Your task to perform on an android device: add a contact in the contacts app Image 0: 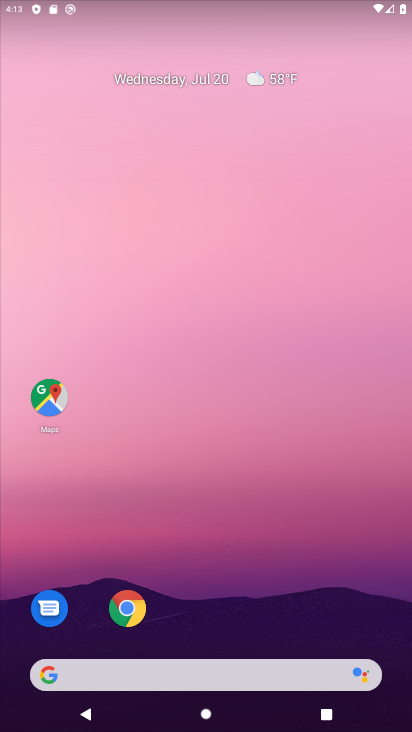
Step 0: drag from (200, 630) to (169, 123)
Your task to perform on an android device: add a contact in the contacts app Image 1: 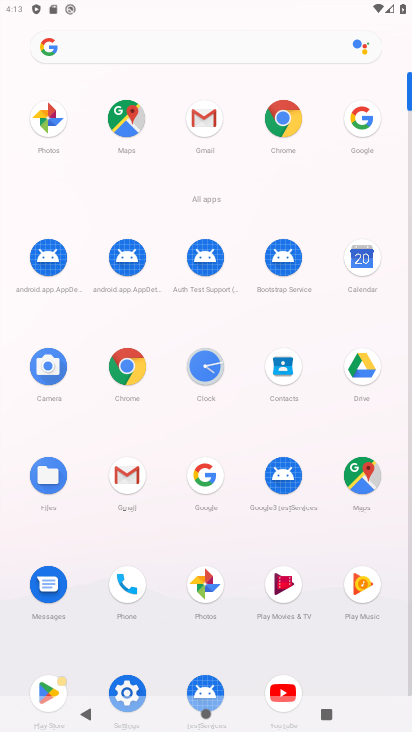
Step 1: click (124, 583)
Your task to perform on an android device: add a contact in the contacts app Image 2: 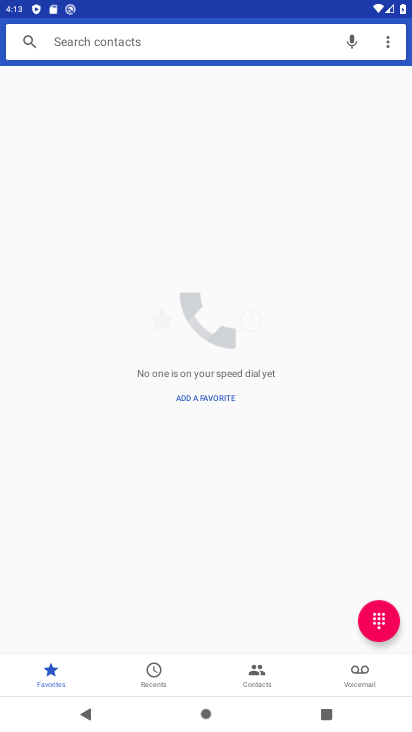
Step 2: click (249, 665)
Your task to perform on an android device: add a contact in the contacts app Image 3: 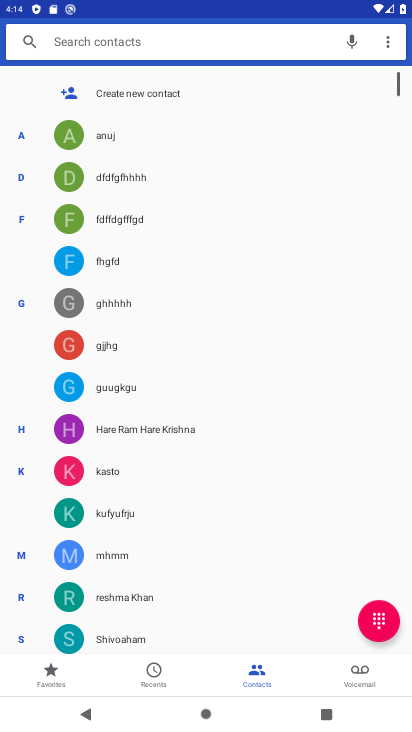
Step 3: click (164, 93)
Your task to perform on an android device: add a contact in the contacts app Image 4: 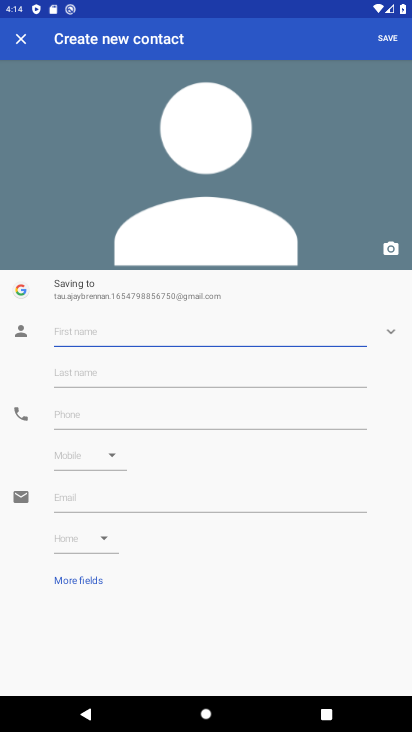
Step 4: type "mnm"
Your task to perform on an android device: add a contact in the contacts app Image 5: 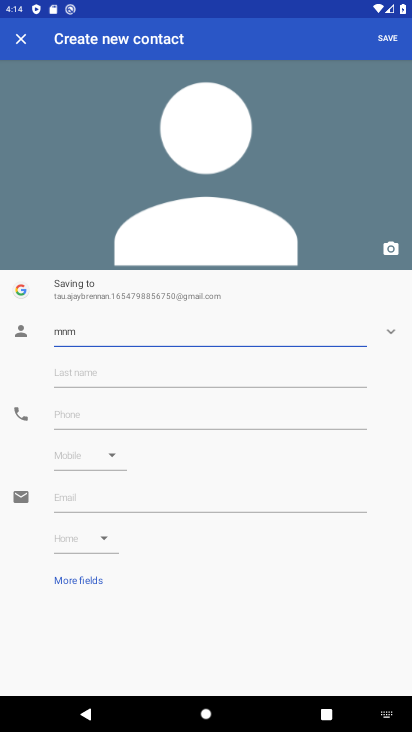
Step 5: click (384, 35)
Your task to perform on an android device: add a contact in the contacts app Image 6: 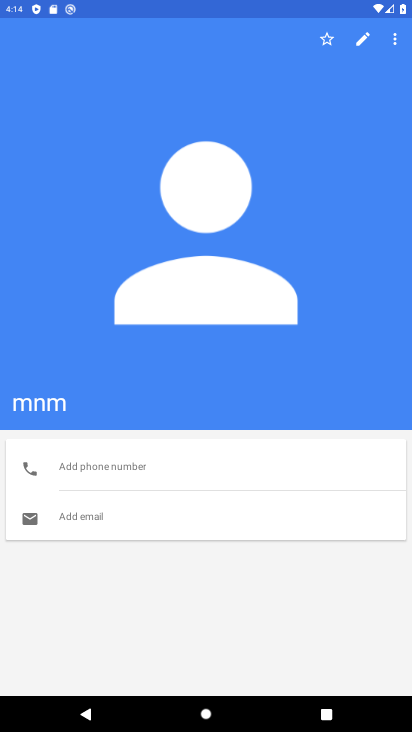
Step 6: task complete